Your task to perform on an android device: find which apps use the phone's location Image 0: 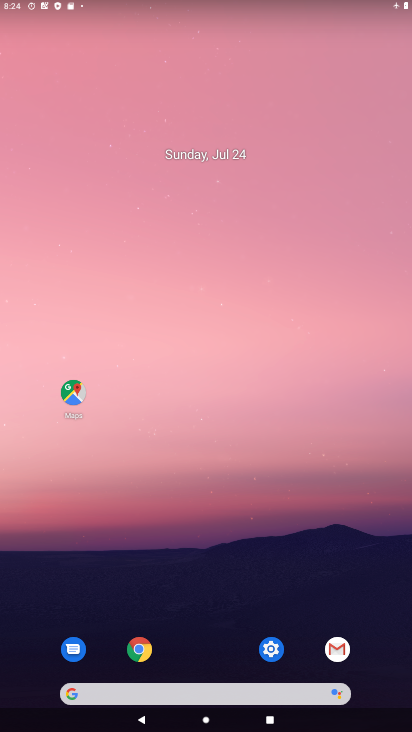
Step 0: click (275, 645)
Your task to perform on an android device: find which apps use the phone's location Image 1: 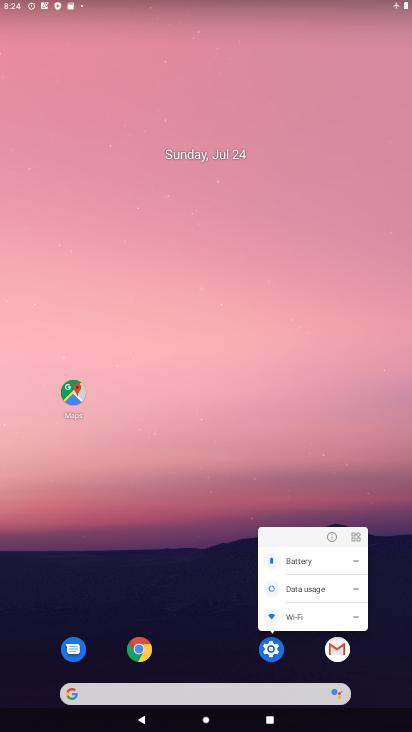
Step 1: click (274, 660)
Your task to perform on an android device: find which apps use the phone's location Image 2: 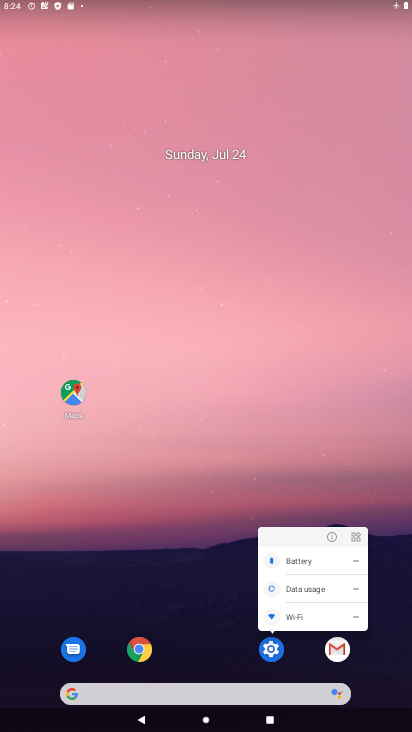
Step 2: click (274, 660)
Your task to perform on an android device: find which apps use the phone's location Image 3: 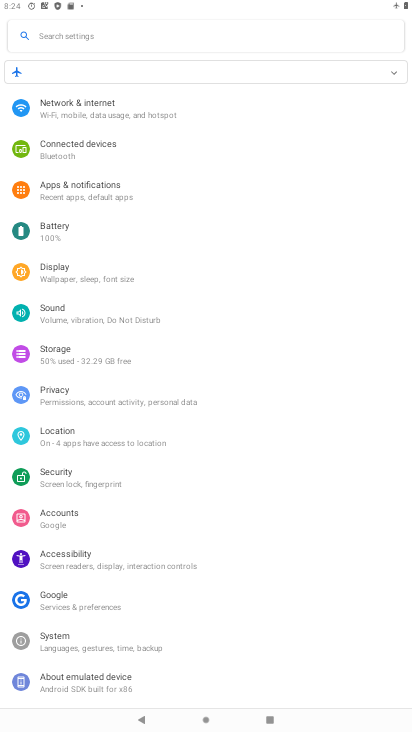
Step 3: click (66, 448)
Your task to perform on an android device: find which apps use the phone's location Image 4: 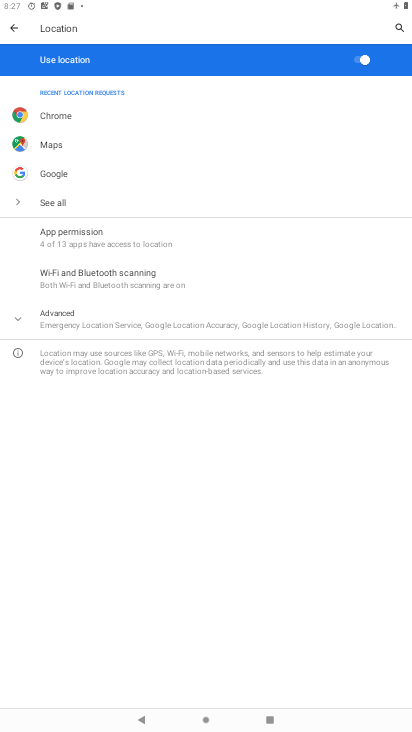
Step 4: task complete